Your task to perform on an android device: Search for sushi restaurants on Maps Image 0: 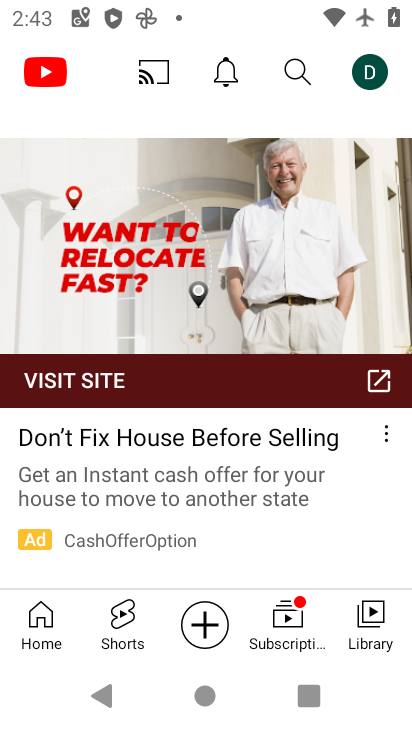
Step 0: press home button
Your task to perform on an android device: Search for sushi restaurants on Maps Image 1: 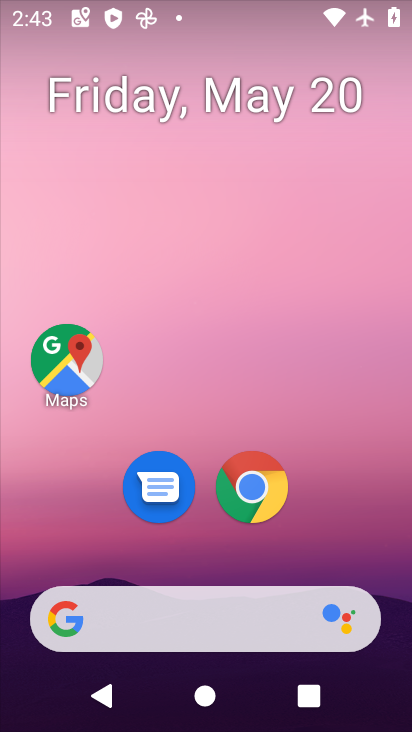
Step 1: drag from (352, 556) to (323, 96)
Your task to perform on an android device: Search for sushi restaurants on Maps Image 2: 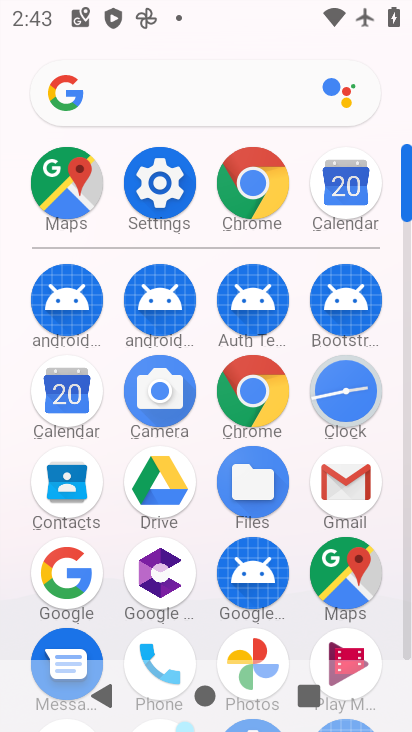
Step 2: click (67, 181)
Your task to perform on an android device: Search for sushi restaurants on Maps Image 3: 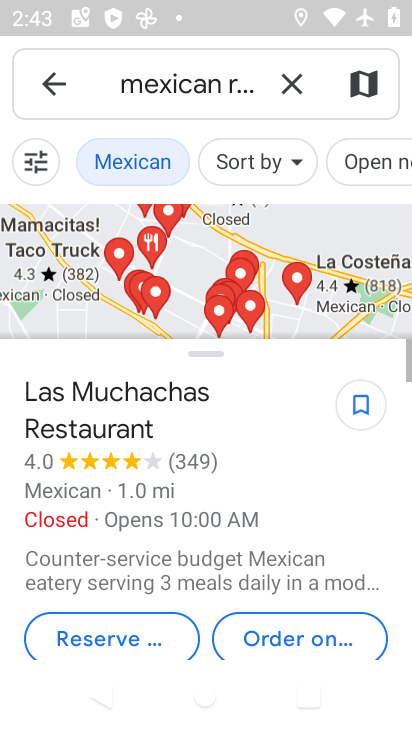
Step 3: click (295, 93)
Your task to perform on an android device: Search for sushi restaurants on Maps Image 4: 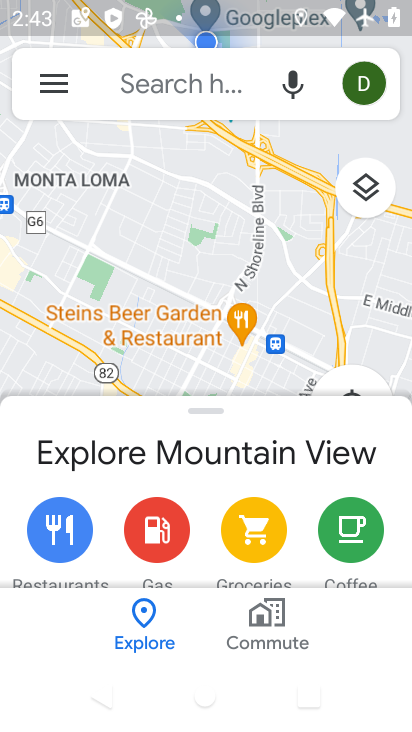
Step 4: click (230, 94)
Your task to perform on an android device: Search for sushi restaurants on Maps Image 5: 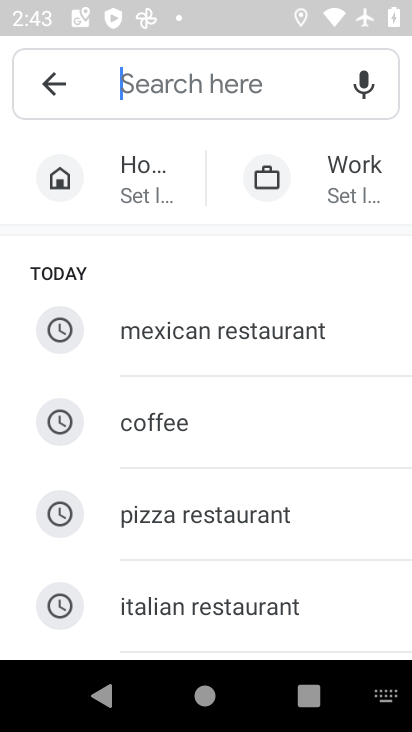
Step 5: drag from (322, 520) to (319, 247)
Your task to perform on an android device: Search for sushi restaurants on Maps Image 6: 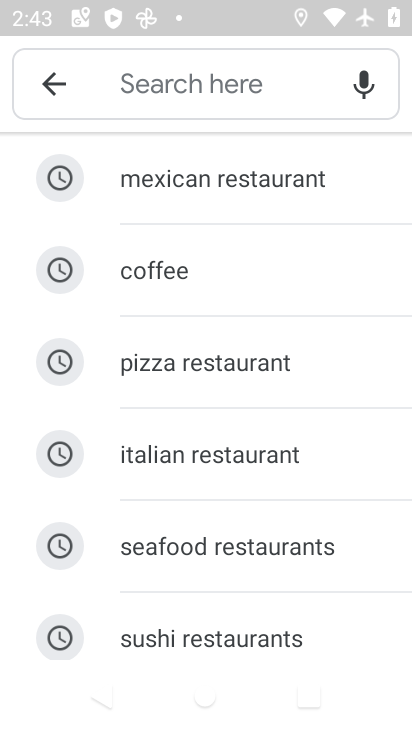
Step 6: click (212, 625)
Your task to perform on an android device: Search for sushi restaurants on Maps Image 7: 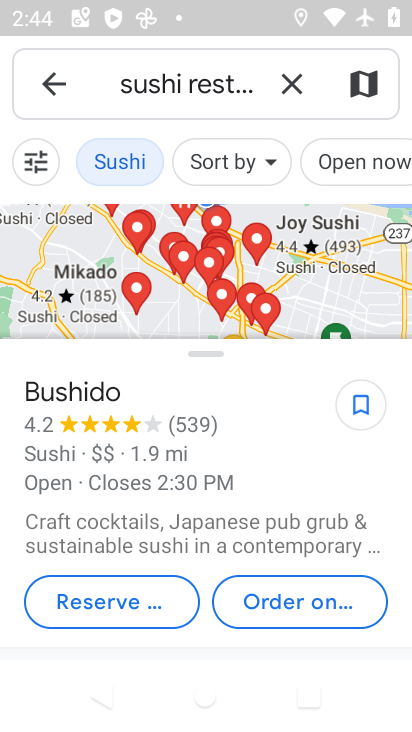
Step 7: task complete